Your task to perform on an android device: Go to CNN.com Image 0: 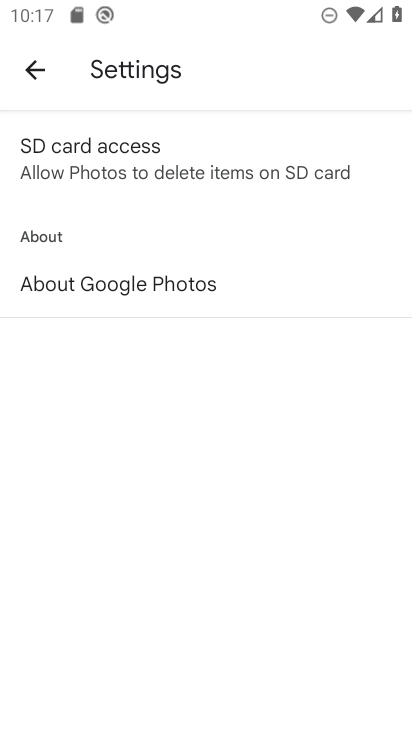
Step 0: press home button
Your task to perform on an android device: Go to CNN.com Image 1: 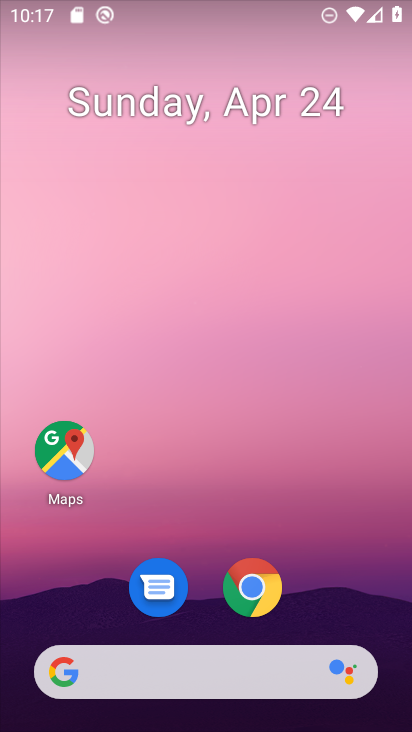
Step 1: drag from (367, 598) to (359, 81)
Your task to perform on an android device: Go to CNN.com Image 2: 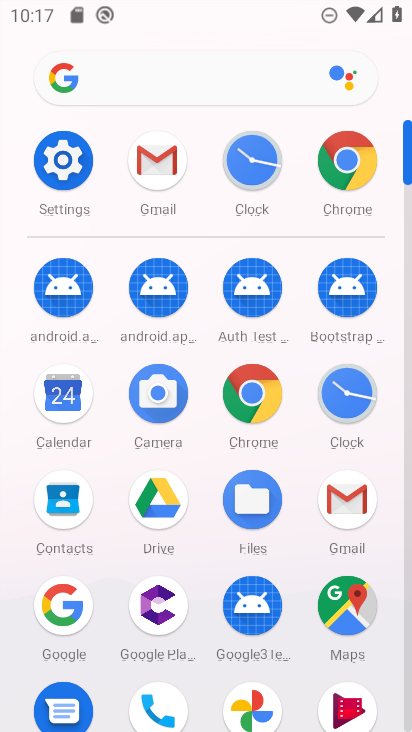
Step 2: click (64, 172)
Your task to perform on an android device: Go to CNN.com Image 3: 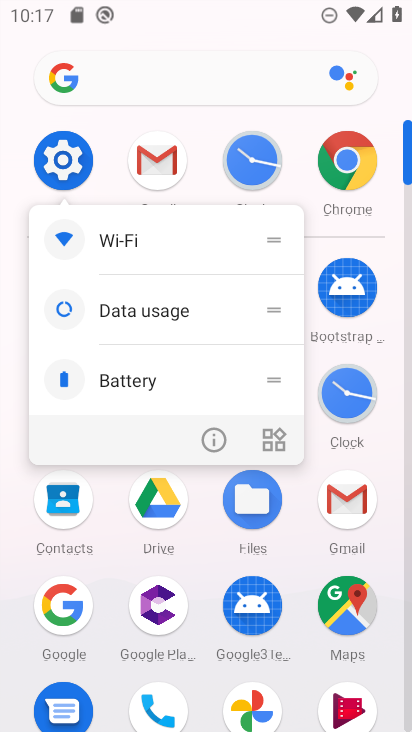
Step 3: click (380, 453)
Your task to perform on an android device: Go to CNN.com Image 4: 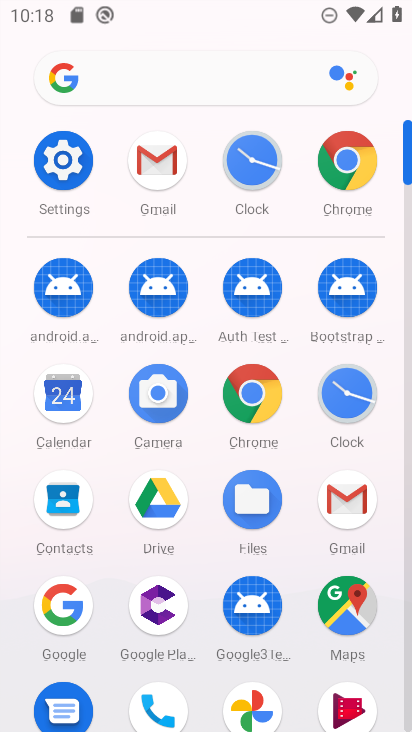
Step 4: click (344, 169)
Your task to perform on an android device: Go to CNN.com Image 5: 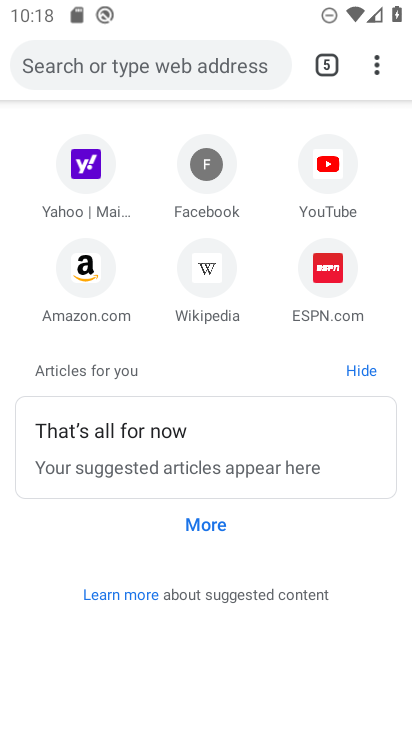
Step 5: click (140, 61)
Your task to perform on an android device: Go to CNN.com Image 6: 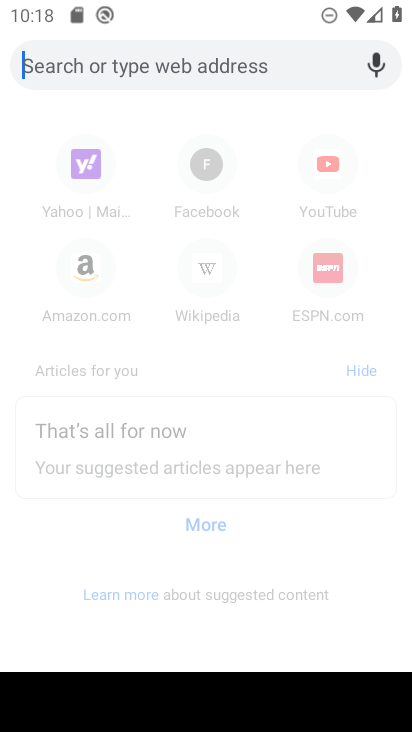
Step 6: type "cnn.com"
Your task to perform on an android device: Go to CNN.com Image 7: 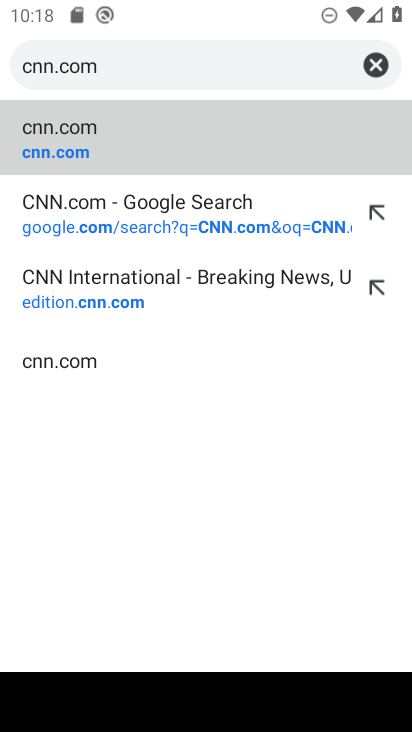
Step 7: click (36, 154)
Your task to perform on an android device: Go to CNN.com Image 8: 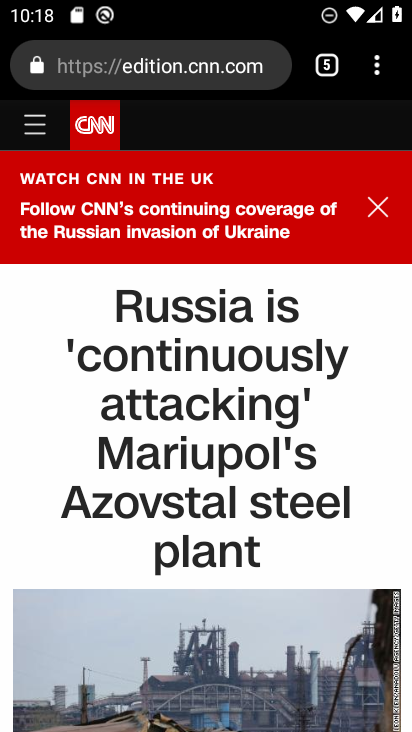
Step 8: task complete